Your task to perform on an android device: Search for vegetarian restaurants on Maps Image 0: 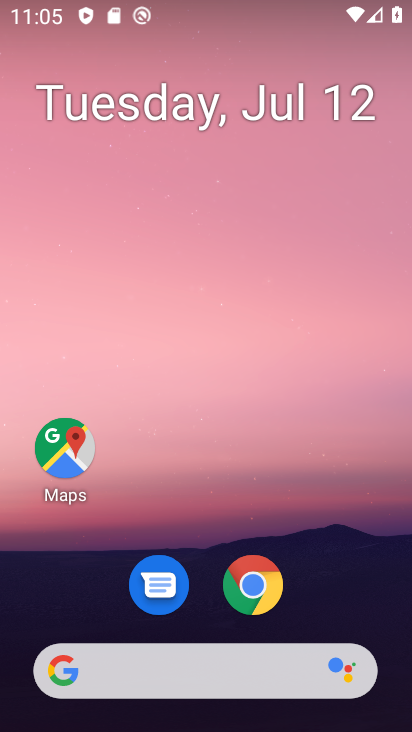
Step 0: click (58, 435)
Your task to perform on an android device: Search for vegetarian restaurants on Maps Image 1: 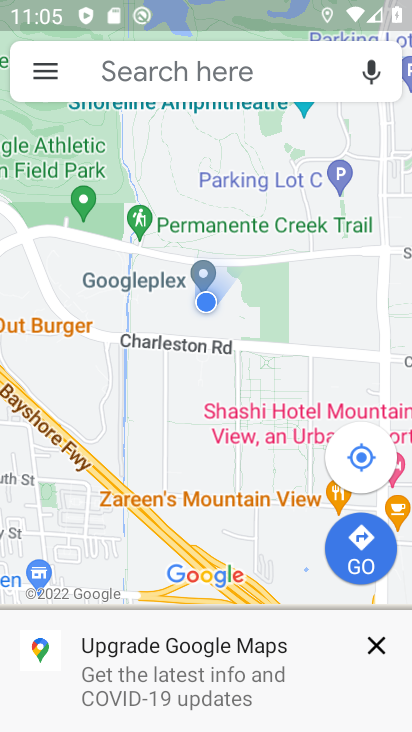
Step 1: click (176, 81)
Your task to perform on an android device: Search for vegetarian restaurants on Maps Image 2: 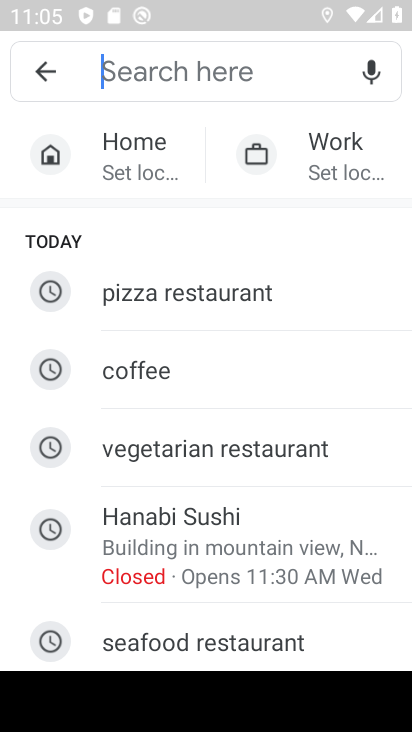
Step 2: click (233, 454)
Your task to perform on an android device: Search for vegetarian restaurants on Maps Image 3: 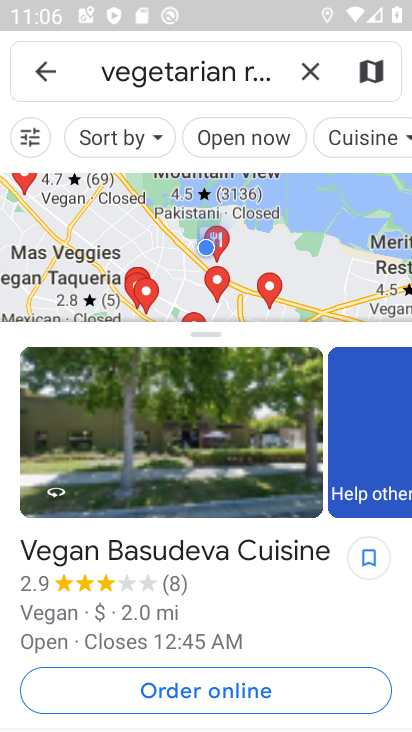
Step 3: task complete